Your task to perform on an android device: install app "Google Play services" Image 0: 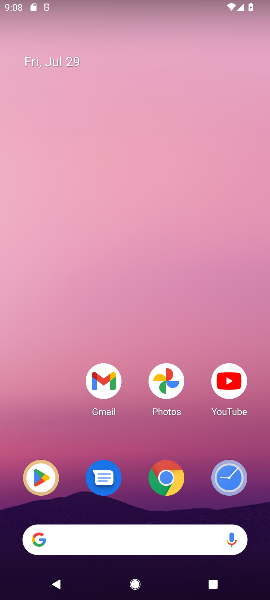
Step 0: click (47, 463)
Your task to perform on an android device: install app "Google Play services" Image 1: 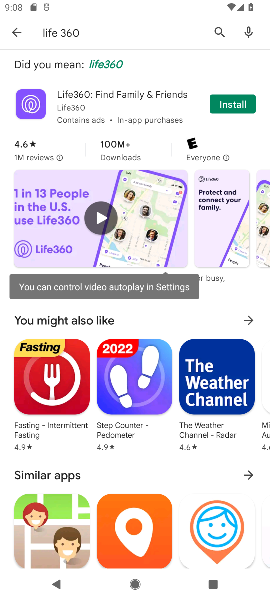
Step 1: click (219, 32)
Your task to perform on an android device: install app "Google Play services" Image 2: 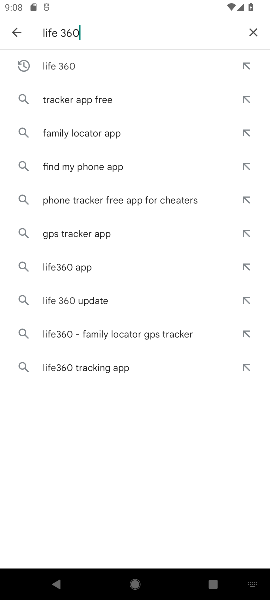
Step 2: click (253, 36)
Your task to perform on an android device: install app "Google Play services" Image 3: 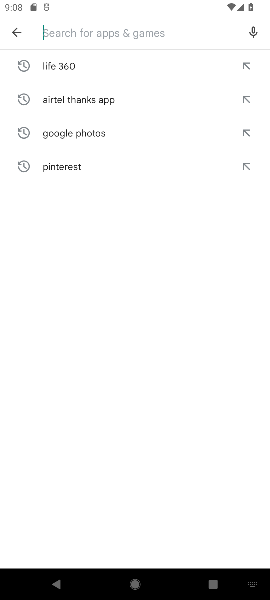
Step 3: click (84, 27)
Your task to perform on an android device: install app "Google Play services" Image 4: 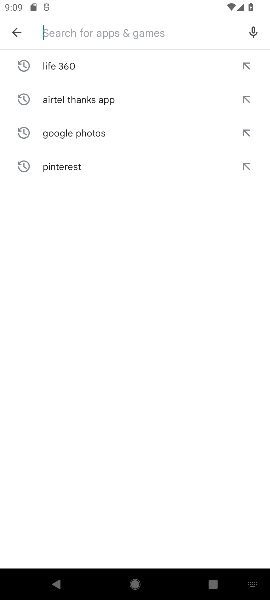
Step 4: type "google play service"
Your task to perform on an android device: install app "Google Play services" Image 5: 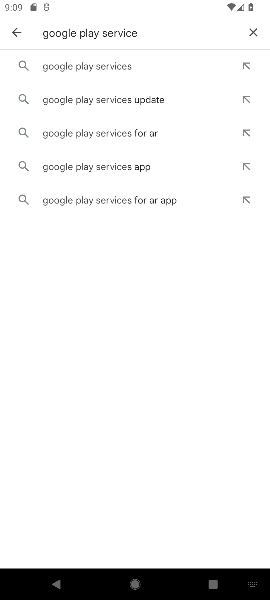
Step 5: click (70, 65)
Your task to perform on an android device: install app "Google Play services" Image 6: 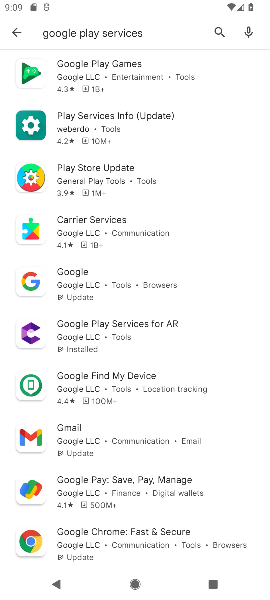
Step 6: click (105, 70)
Your task to perform on an android device: install app "Google Play services" Image 7: 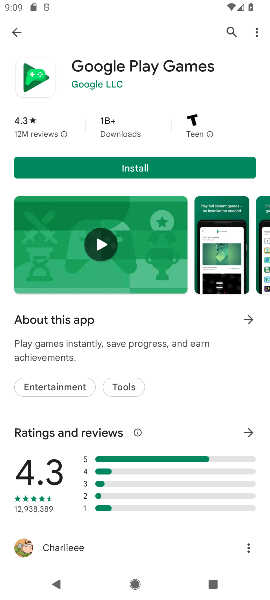
Step 7: click (113, 169)
Your task to perform on an android device: install app "Google Play services" Image 8: 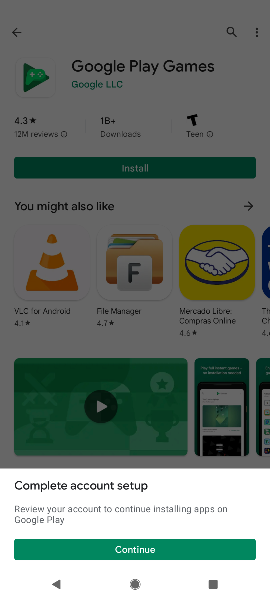
Step 8: task complete